Your task to perform on an android device: Go to Maps Image 0: 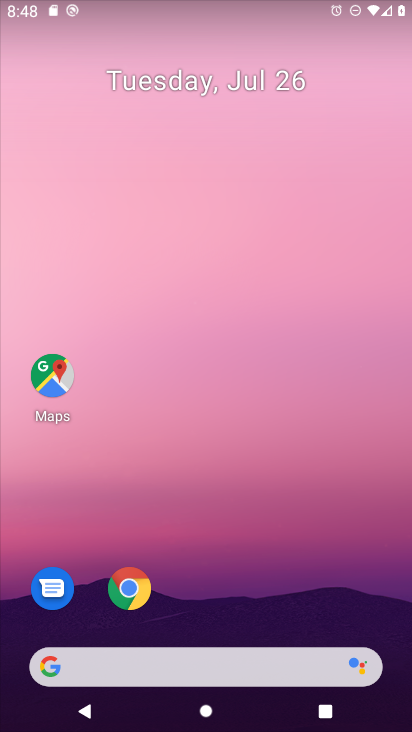
Step 0: drag from (245, 618) to (325, 3)
Your task to perform on an android device: Go to Maps Image 1: 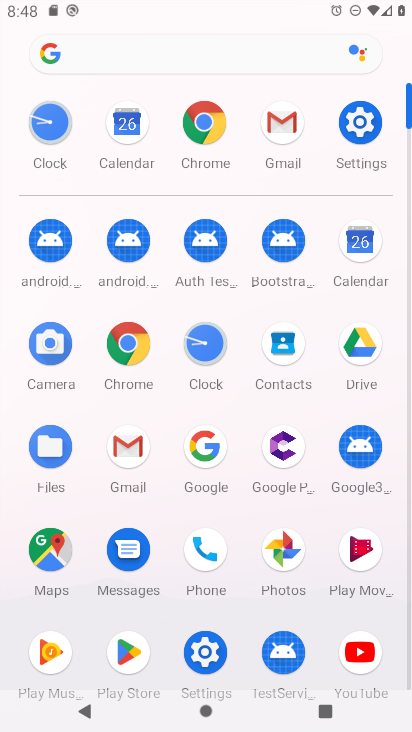
Step 1: click (58, 564)
Your task to perform on an android device: Go to Maps Image 2: 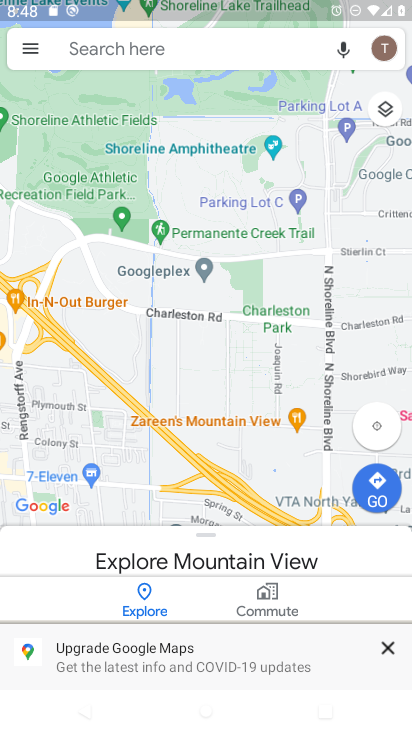
Step 2: task complete